Your task to perform on an android device: check the backup settings in the google photos Image 0: 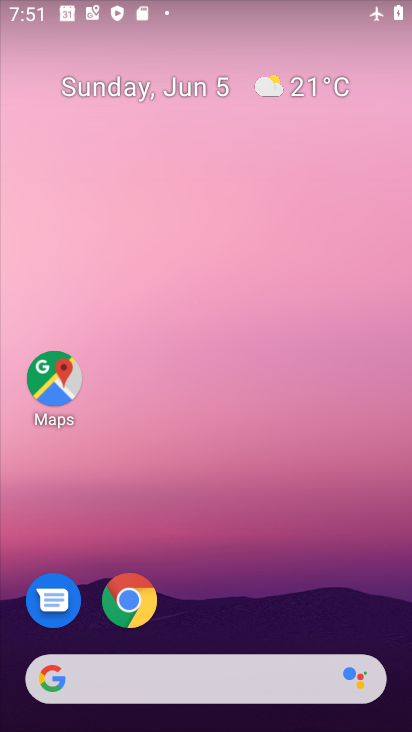
Step 0: drag from (263, 572) to (260, 21)
Your task to perform on an android device: check the backup settings in the google photos Image 1: 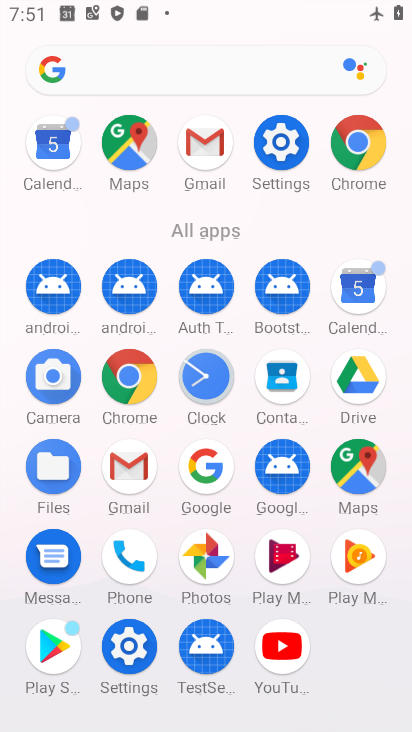
Step 1: click (204, 552)
Your task to perform on an android device: check the backup settings in the google photos Image 2: 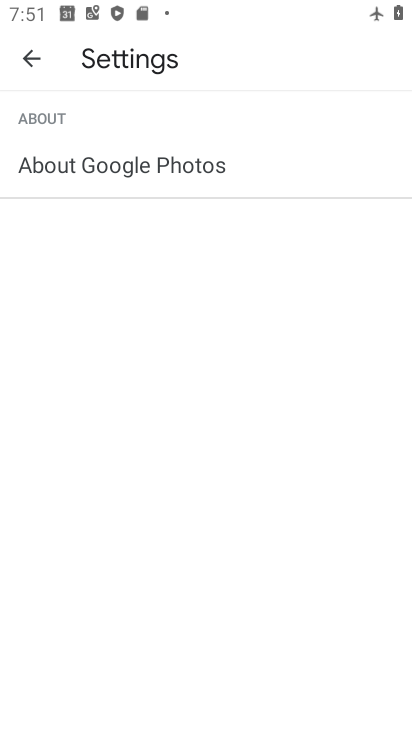
Step 2: click (33, 55)
Your task to perform on an android device: check the backup settings in the google photos Image 3: 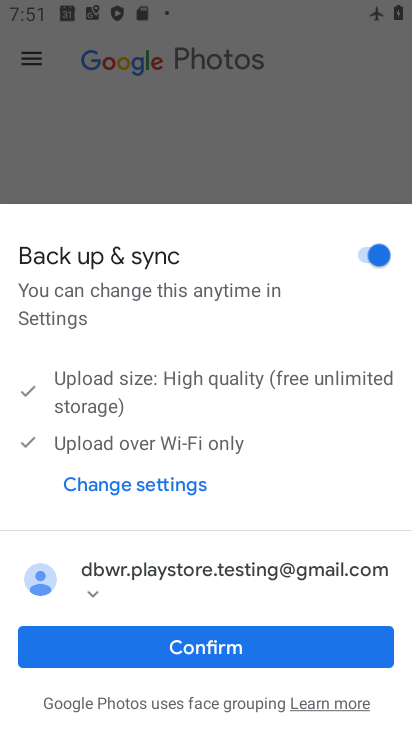
Step 3: click (288, 649)
Your task to perform on an android device: check the backup settings in the google photos Image 4: 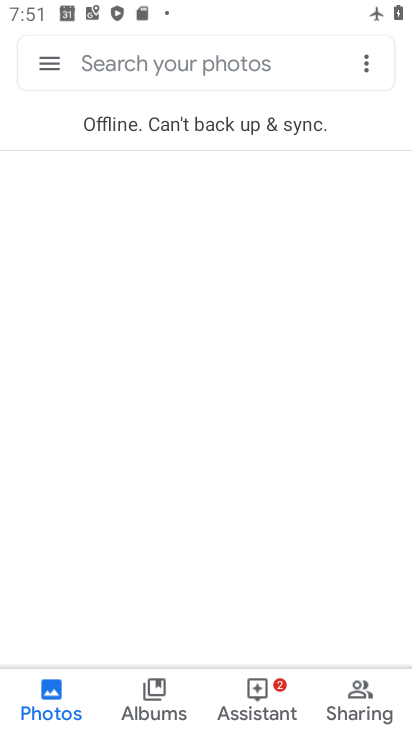
Step 4: task complete